Your task to perform on an android device: Open Youtube and go to "Your channel" Image 0: 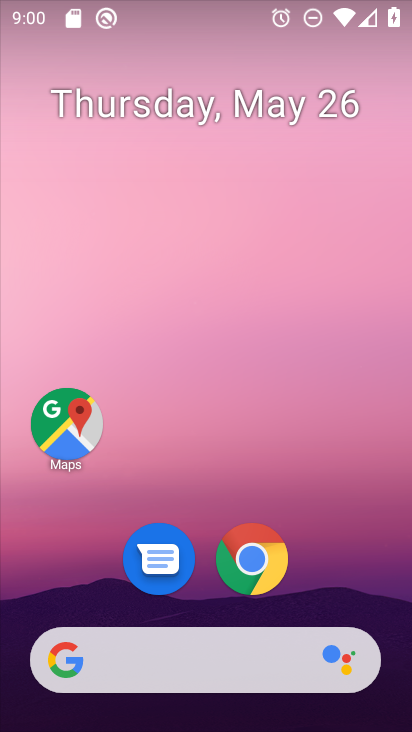
Step 0: drag from (348, 549) to (326, 77)
Your task to perform on an android device: Open Youtube and go to "Your channel" Image 1: 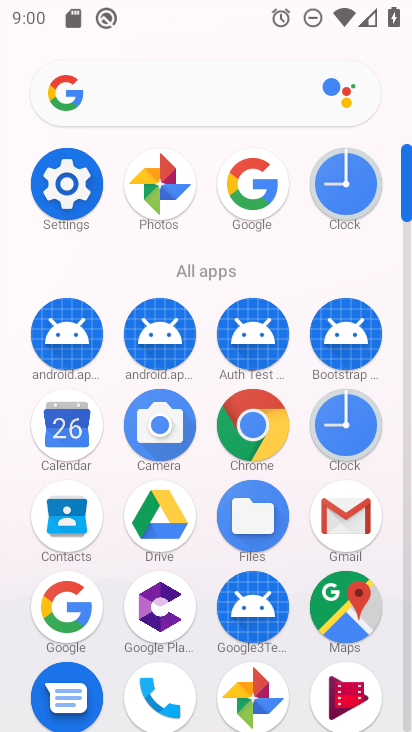
Step 1: drag from (216, 622) to (293, 149)
Your task to perform on an android device: Open Youtube and go to "Your channel" Image 2: 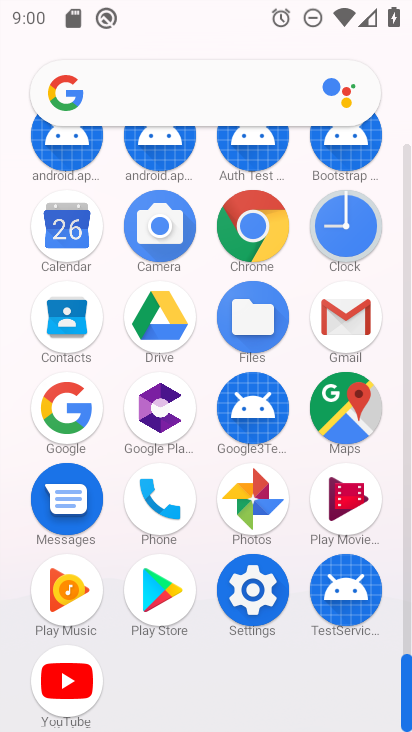
Step 2: click (77, 679)
Your task to perform on an android device: Open Youtube and go to "Your channel" Image 3: 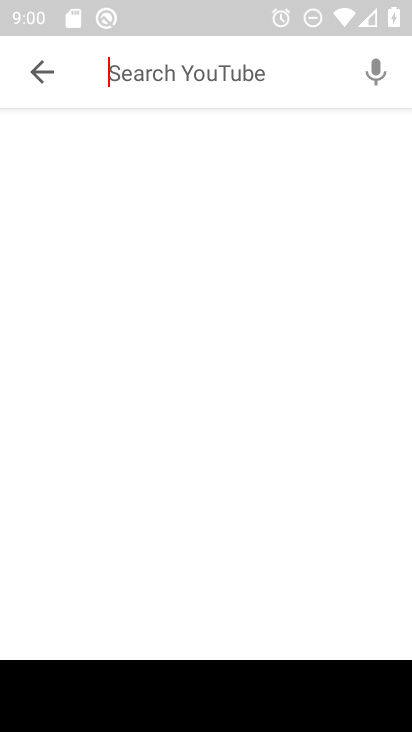
Step 3: task complete